Your task to perform on an android device: turn off priority inbox in the gmail app Image 0: 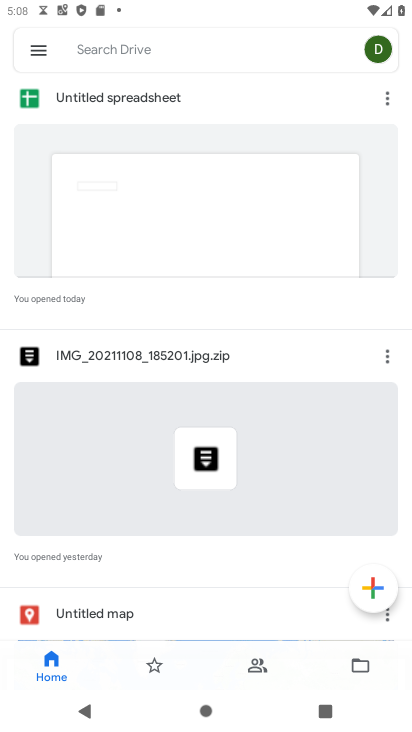
Step 0: press back button
Your task to perform on an android device: turn off priority inbox in the gmail app Image 1: 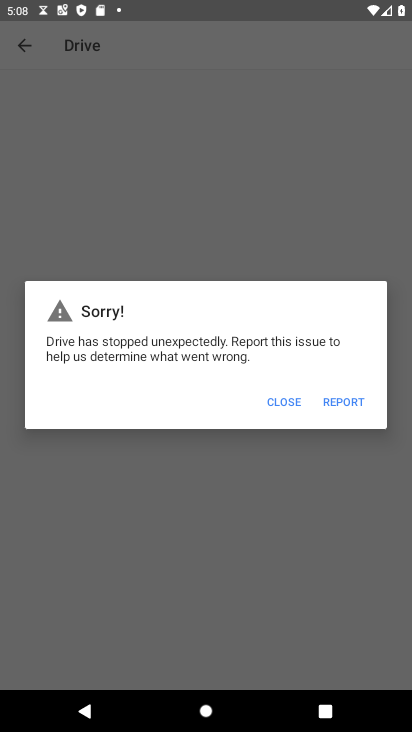
Step 1: press back button
Your task to perform on an android device: turn off priority inbox in the gmail app Image 2: 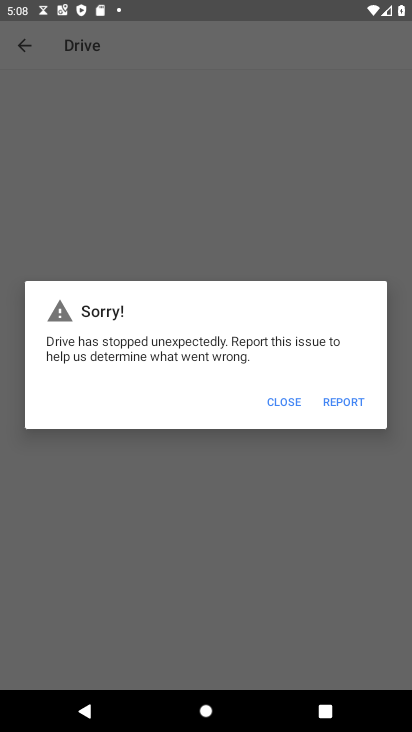
Step 2: press home button
Your task to perform on an android device: turn off priority inbox in the gmail app Image 3: 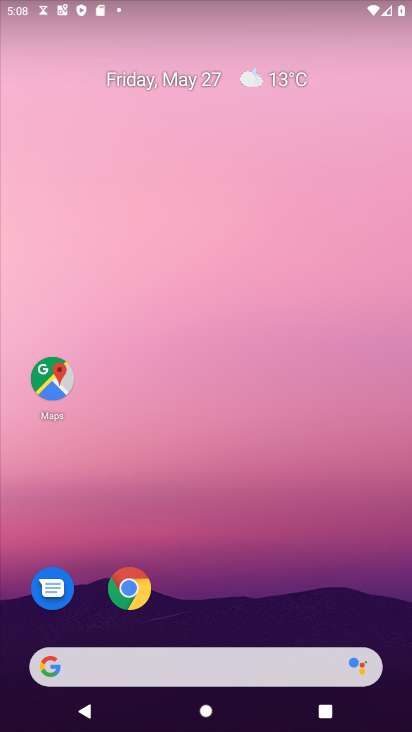
Step 3: drag from (204, 603) to (272, 119)
Your task to perform on an android device: turn off priority inbox in the gmail app Image 4: 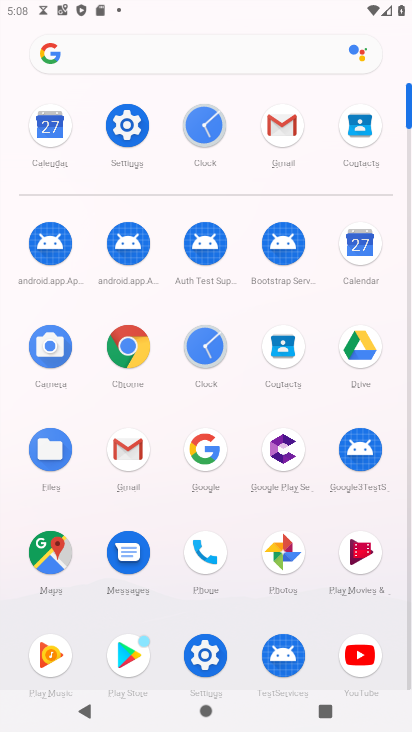
Step 4: click (282, 136)
Your task to perform on an android device: turn off priority inbox in the gmail app Image 5: 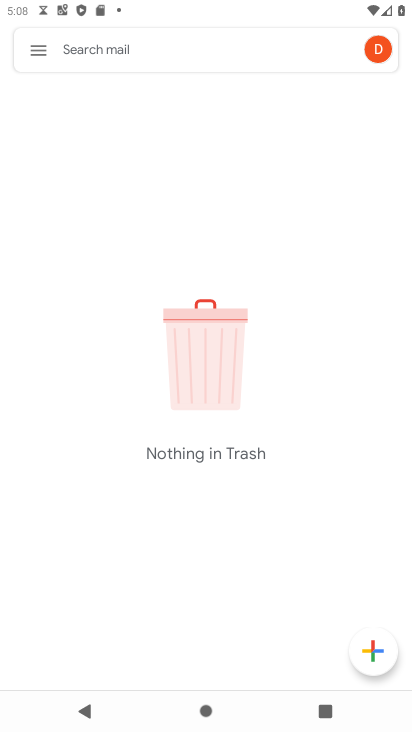
Step 5: click (29, 46)
Your task to perform on an android device: turn off priority inbox in the gmail app Image 6: 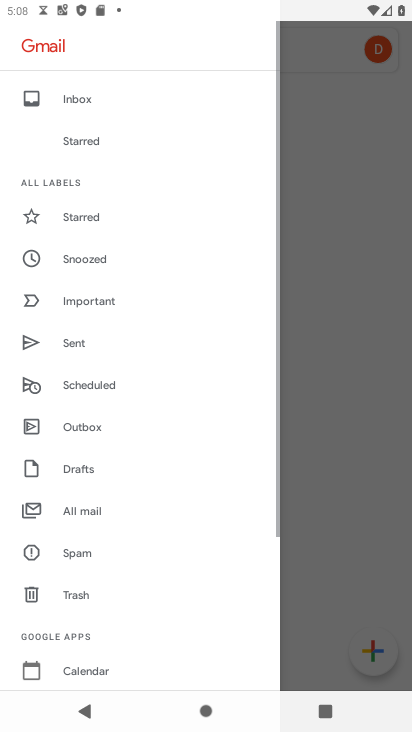
Step 6: drag from (143, 596) to (201, 213)
Your task to perform on an android device: turn off priority inbox in the gmail app Image 7: 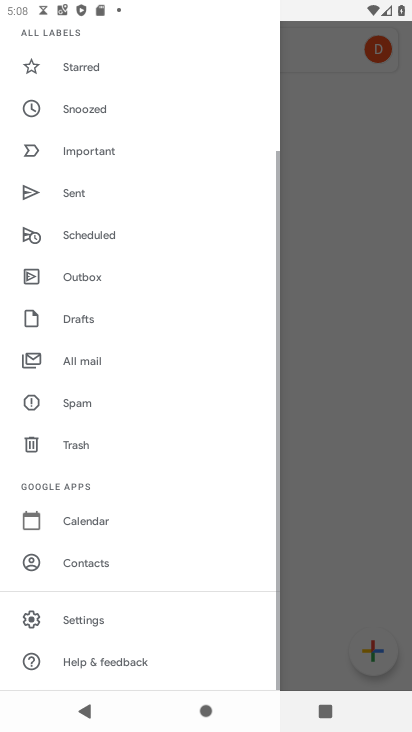
Step 7: click (59, 620)
Your task to perform on an android device: turn off priority inbox in the gmail app Image 8: 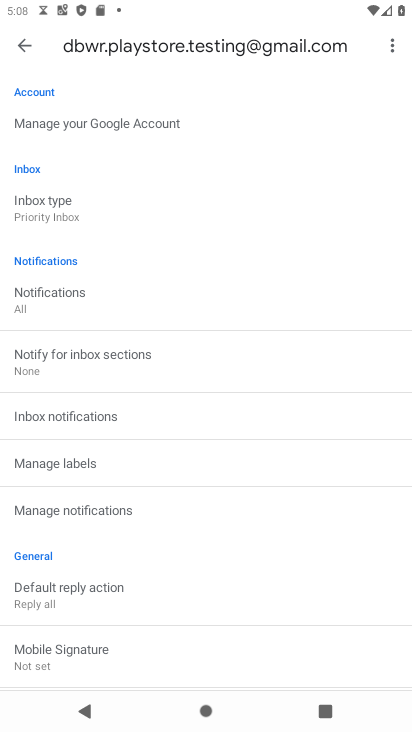
Step 8: click (98, 199)
Your task to perform on an android device: turn off priority inbox in the gmail app Image 9: 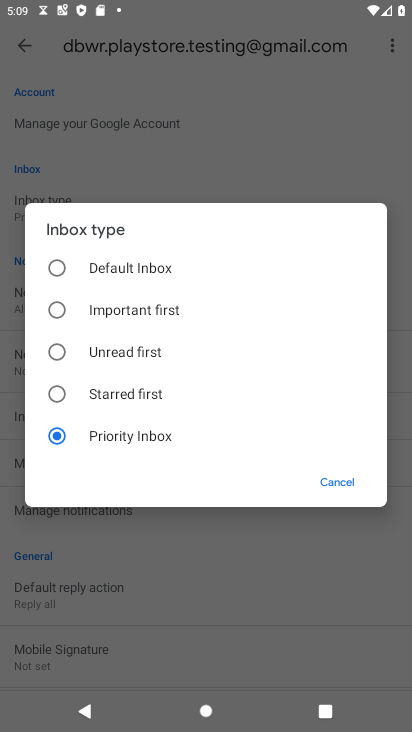
Step 9: click (60, 270)
Your task to perform on an android device: turn off priority inbox in the gmail app Image 10: 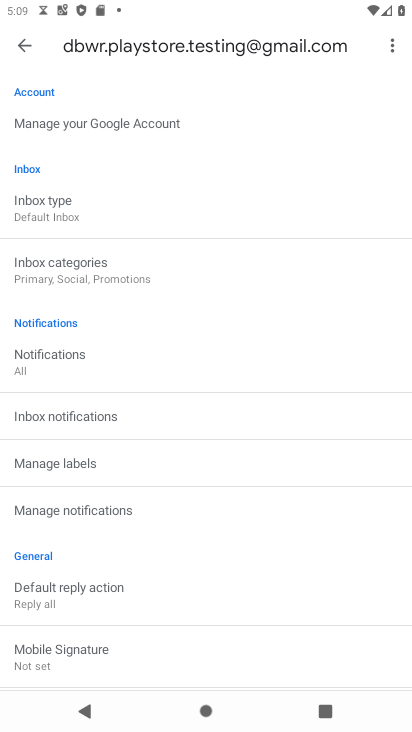
Step 10: task complete